Your task to perform on an android device: open a bookmark in the chrome app Image 0: 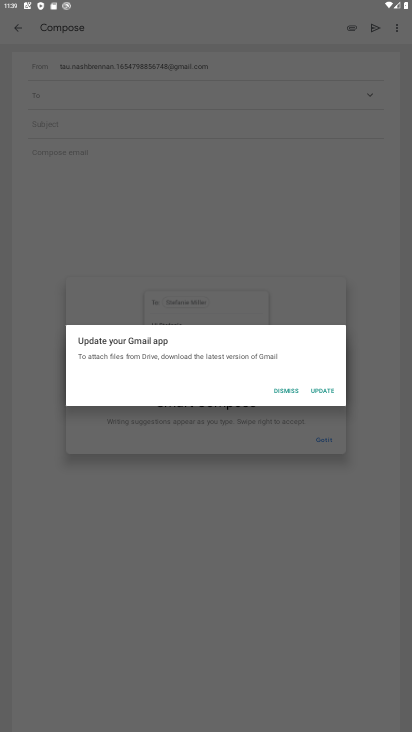
Step 0: press home button
Your task to perform on an android device: open a bookmark in the chrome app Image 1: 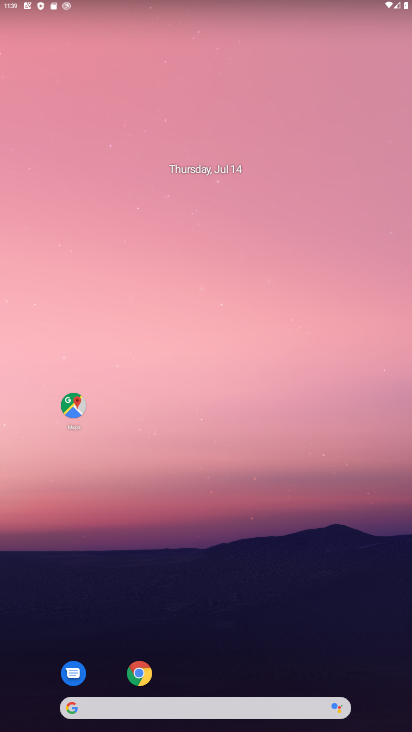
Step 1: click (143, 673)
Your task to perform on an android device: open a bookmark in the chrome app Image 2: 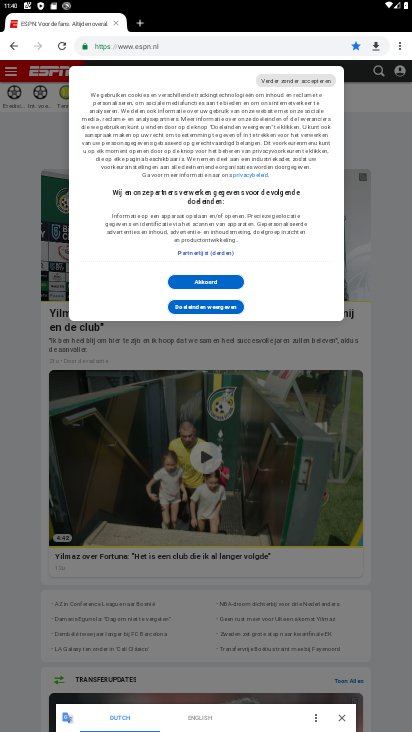
Step 2: click (399, 46)
Your task to perform on an android device: open a bookmark in the chrome app Image 3: 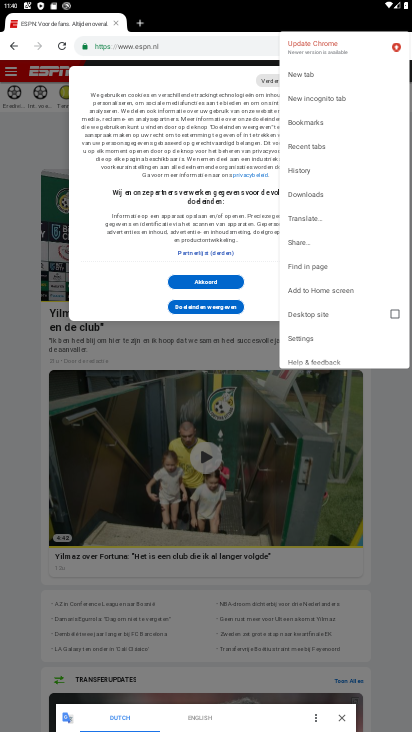
Step 3: click (302, 125)
Your task to perform on an android device: open a bookmark in the chrome app Image 4: 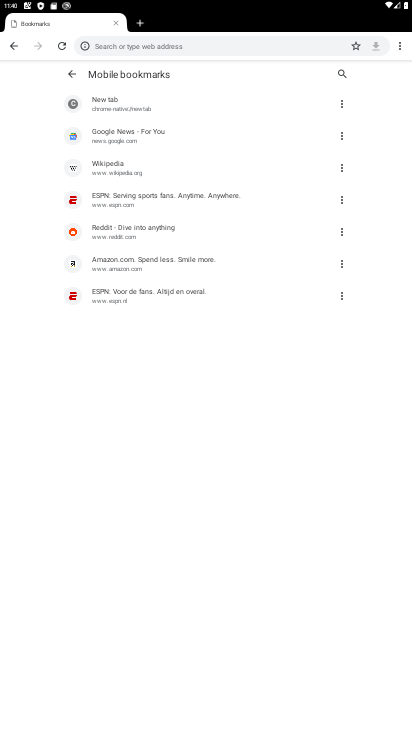
Step 4: click (111, 162)
Your task to perform on an android device: open a bookmark in the chrome app Image 5: 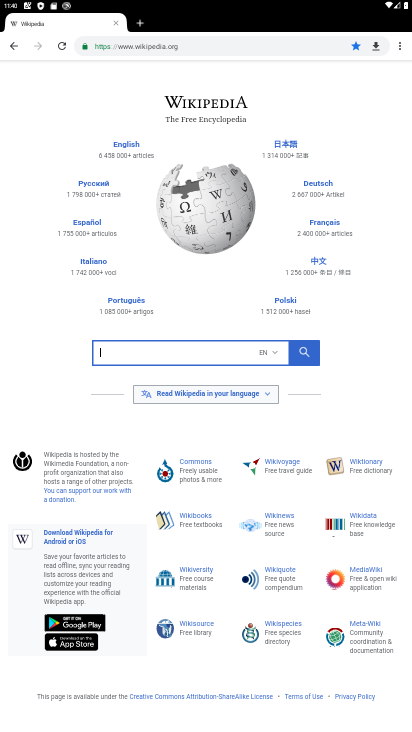
Step 5: task complete